Your task to perform on an android device: allow notifications from all sites in the chrome app Image 0: 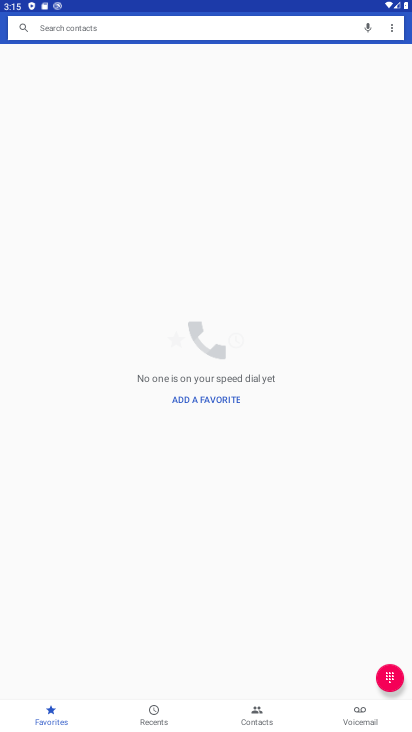
Step 0: press home button
Your task to perform on an android device: allow notifications from all sites in the chrome app Image 1: 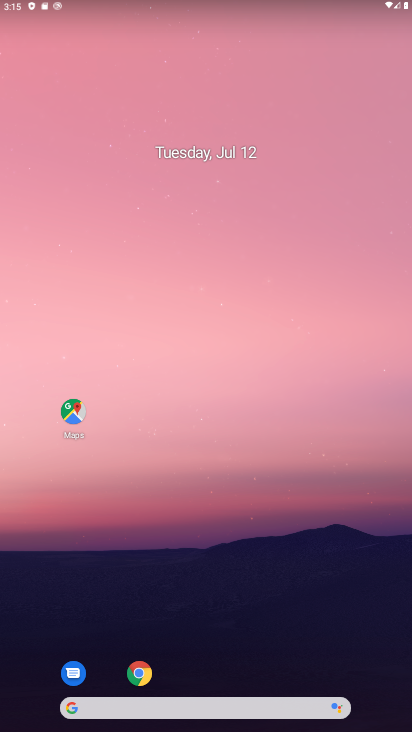
Step 1: click (138, 674)
Your task to perform on an android device: allow notifications from all sites in the chrome app Image 2: 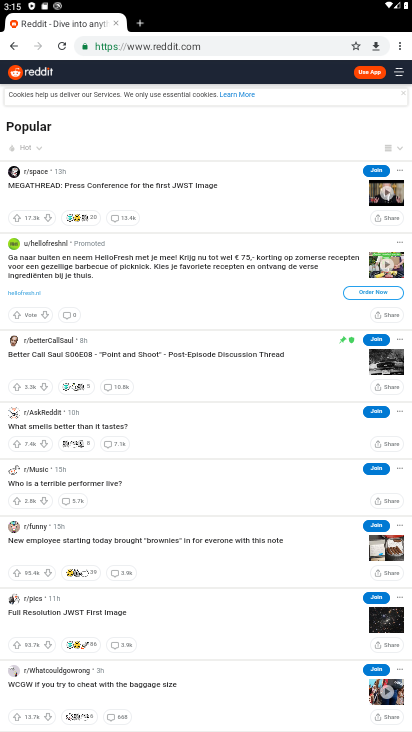
Step 2: click (399, 46)
Your task to perform on an android device: allow notifications from all sites in the chrome app Image 3: 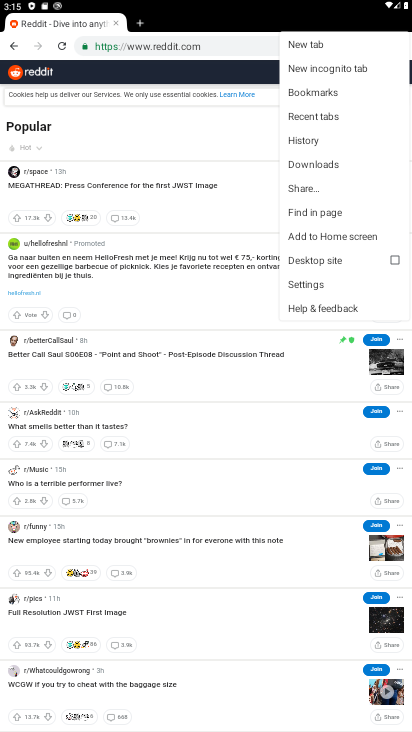
Step 3: click (310, 281)
Your task to perform on an android device: allow notifications from all sites in the chrome app Image 4: 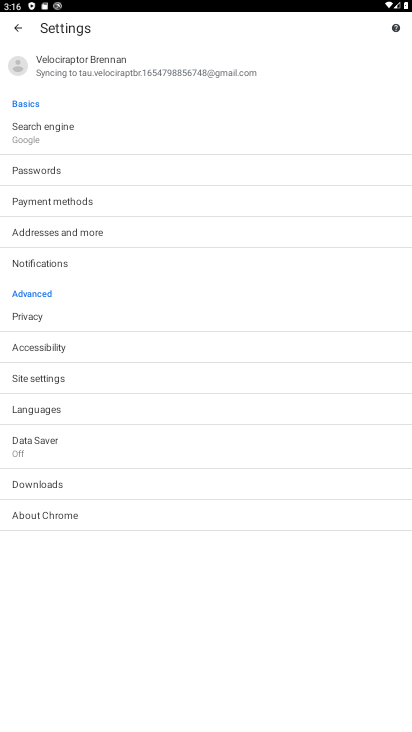
Step 4: click (48, 380)
Your task to perform on an android device: allow notifications from all sites in the chrome app Image 5: 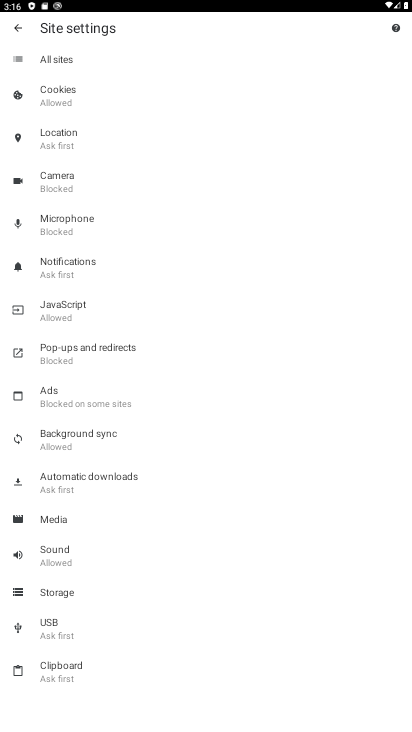
Step 5: click (62, 266)
Your task to perform on an android device: allow notifications from all sites in the chrome app Image 6: 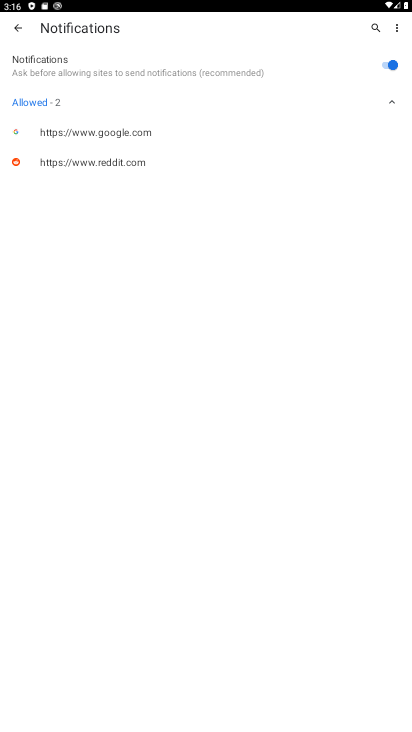
Step 6: task complete